Your task to perform on an android device: turn on data saver in the chrome app Image 0: 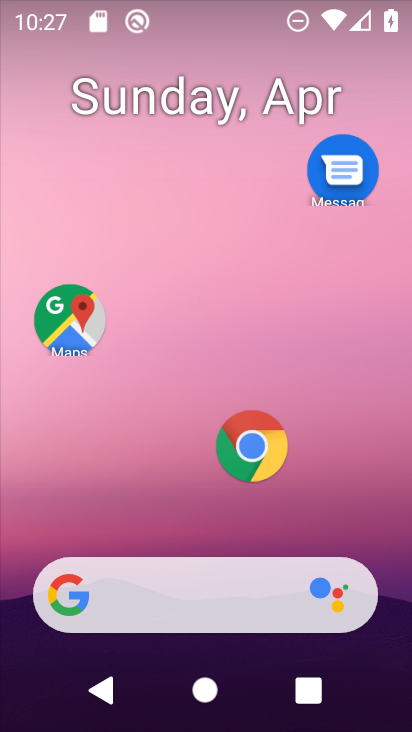
Step 0: drag from (207, 529) to (300, 149)
Your task to perform on an android device: turn on data saver in the chrome app Image 1: 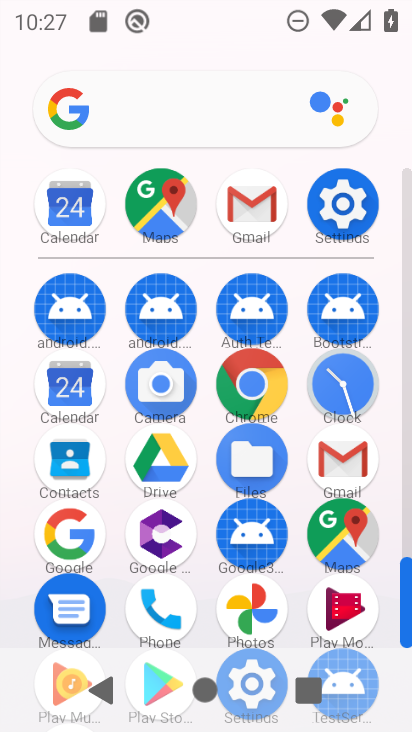
Step 1: click (250, 379)
Your task to perform on an android device: turn on data saver in the chrome app Image 2: 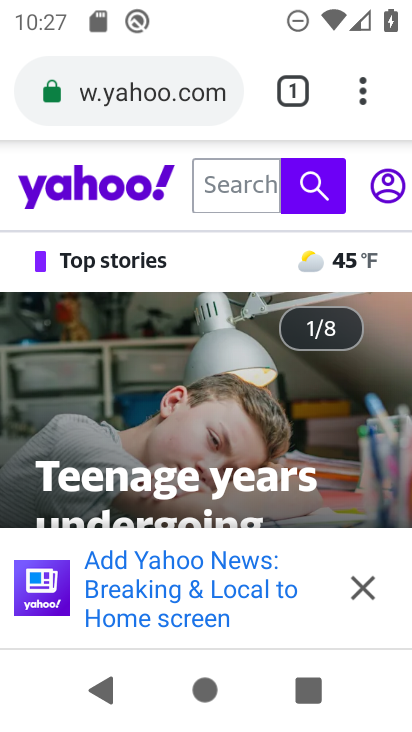
Step 2: drag from (206, 503) to (244, 190)
Your task to perform on an android device: turn on data saver in the chrome app Image 3: 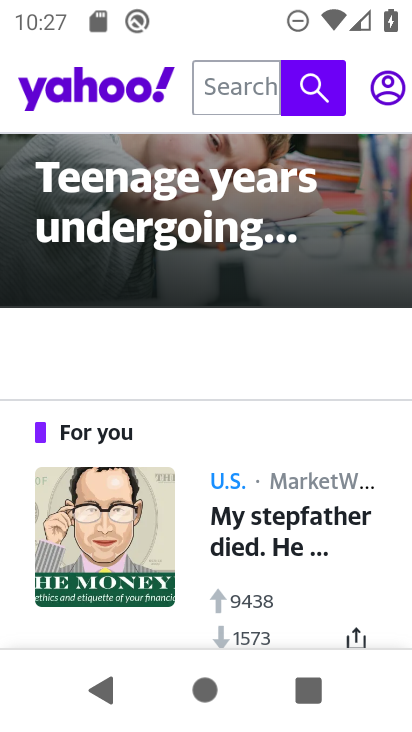
Step 3: drag from (263, 303) to (296, 641)
Your task to perform on an android device: turn on data saver in the chrome app Image 4: 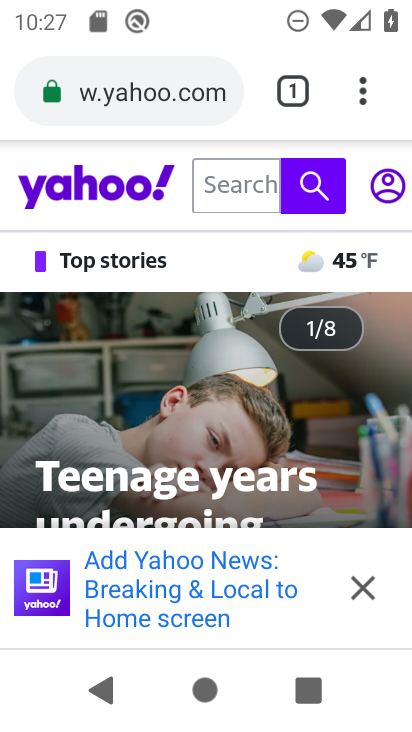
Step 4: drag from (356, 87) to (131, 472)
Your task to perform on an android device: turn on data saver in the chrome app Image 5: 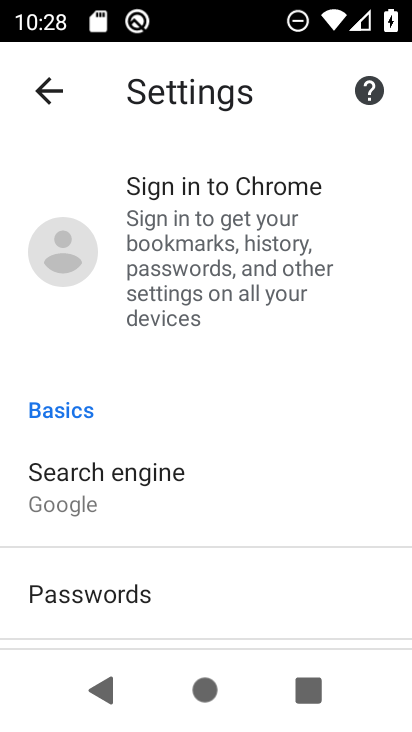
Step 5: drag from (201, 579) to (352, 121)
Your task to perform on an android device: turn on data saver in the chrome app Image 6: 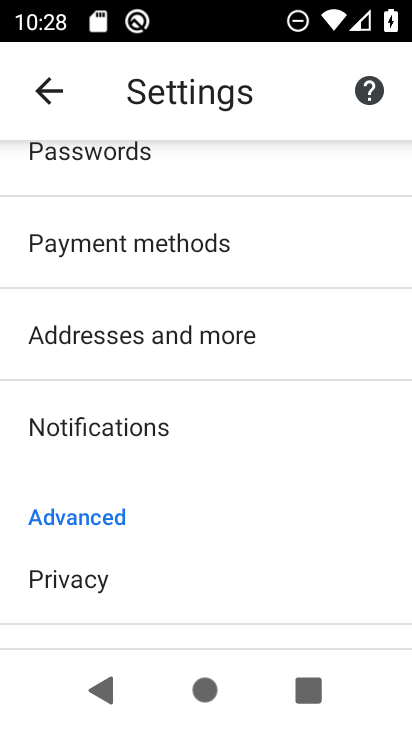
Step 6: drag from (186, 575) to (255, 123)
Your task to perform on an android device: turn on data saver in the chrome app Image 7: 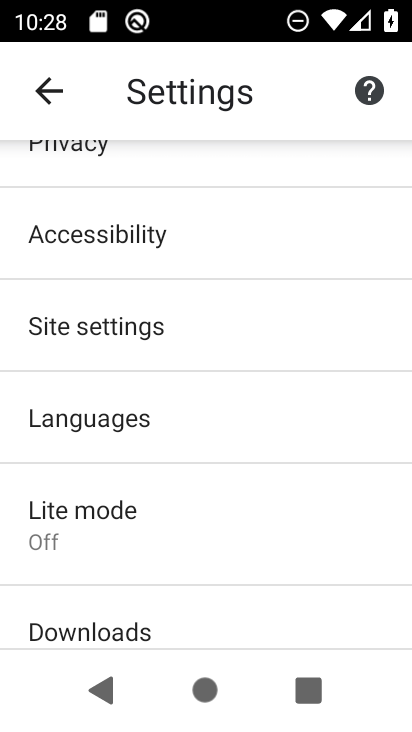
Step 7: click (141, 504)
Your task to perform on an android device: turn on data saver in the chrome app Image 8: 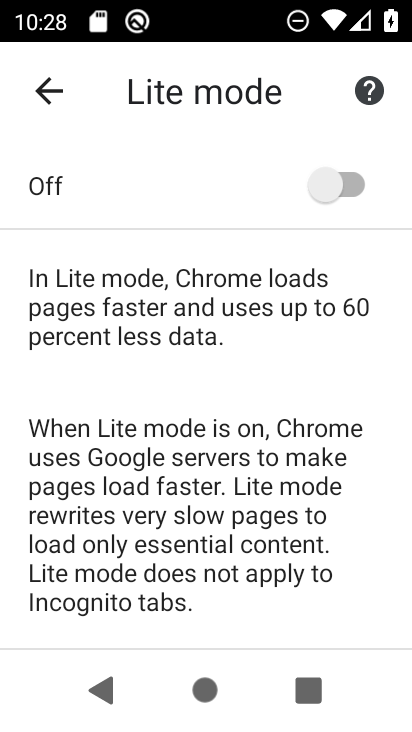
Step 8: click (339, 174)
Your task to perform on an android device: turn on data saver in the chrome app Image 9: 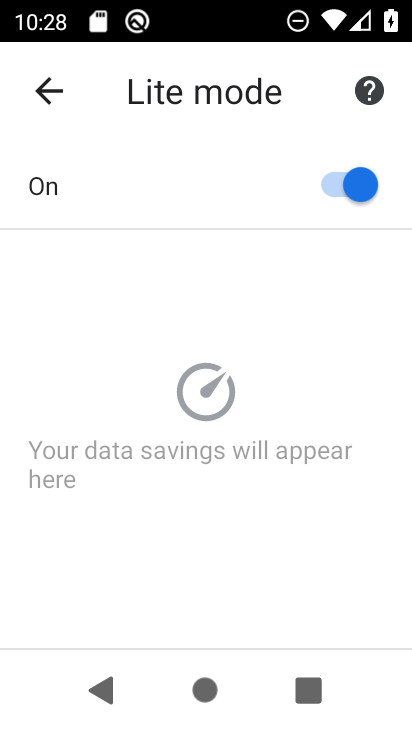
Step 9: task complete